Your task to perform on an android device: Open Youtube and go to "Your channel" Image 0: 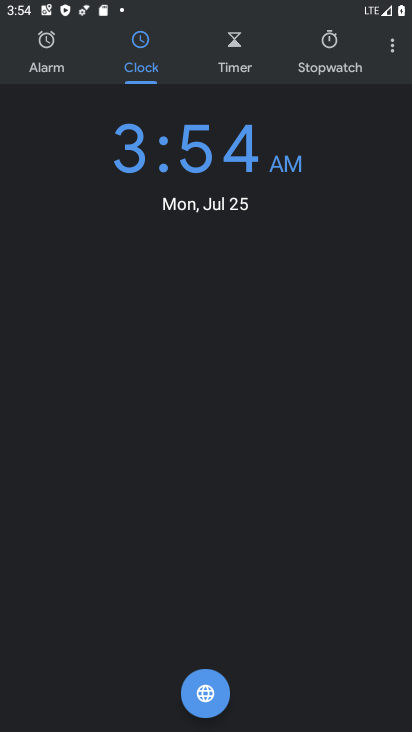
Step 0: press home button
Your task to perform on an android device: Open Youtube and go to "Your channel" Image 1: 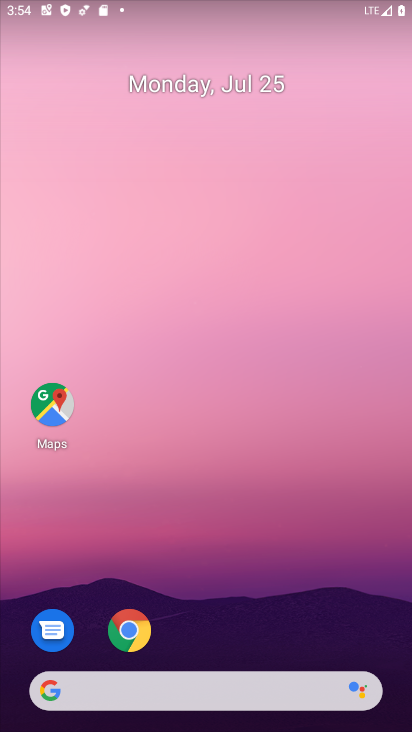
Step 1: drag from (205, 573) to (42, 358)
Your task to perform on an android device: Open Youtube and go to "Your channel" Image 2: 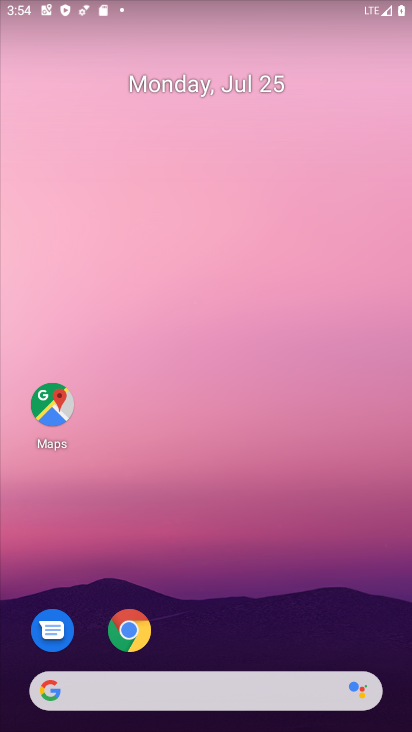
Step 2: drag from (194, 664) to (234, 4)
Your task to perform on an android device: Open Youtube and go to "Your channel" Image 3: 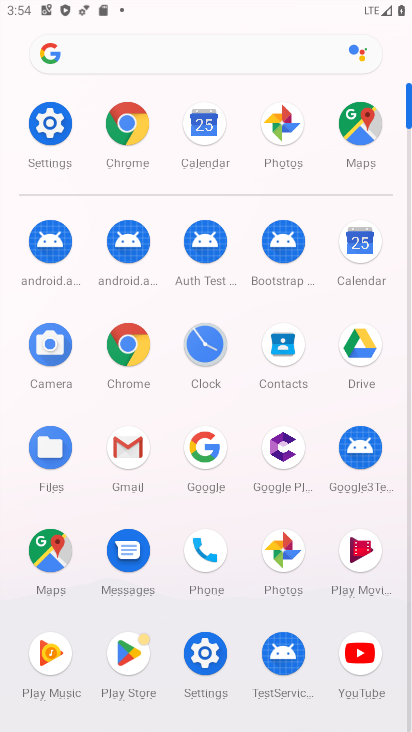
Step 3: click (360, 669)
Your task to perform on an android device: Open Youtube and go to "Your channel" Image 4: 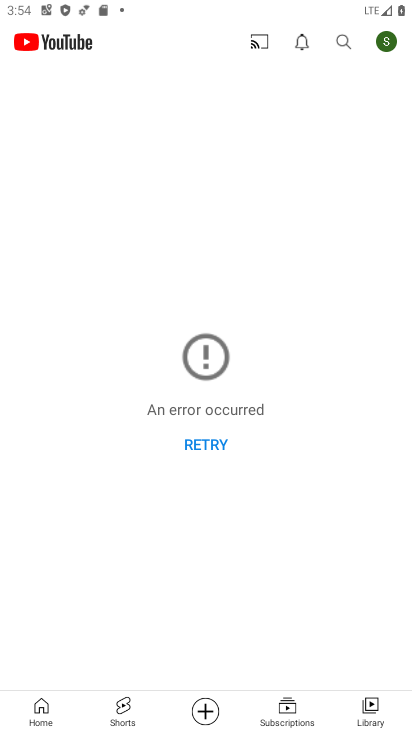
Step 4: click (204, 439)
Your task to perform on an android device: Open Youtube and go to "Your channel" Image 5: 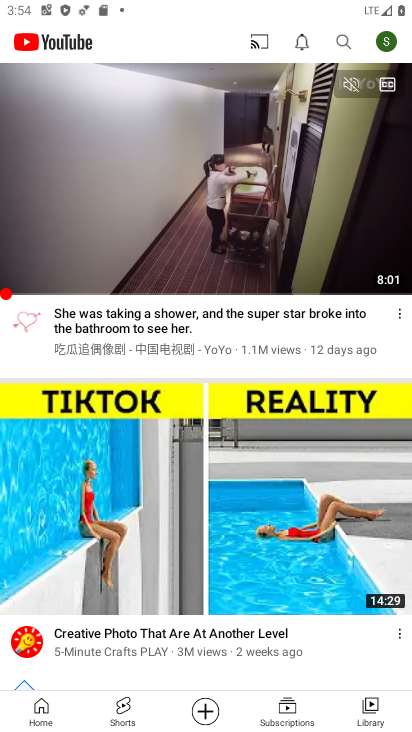
Step 5: click (386, 49)
Your task to perform on an android device: Open Youtube and go to "Your channel" Image 6: 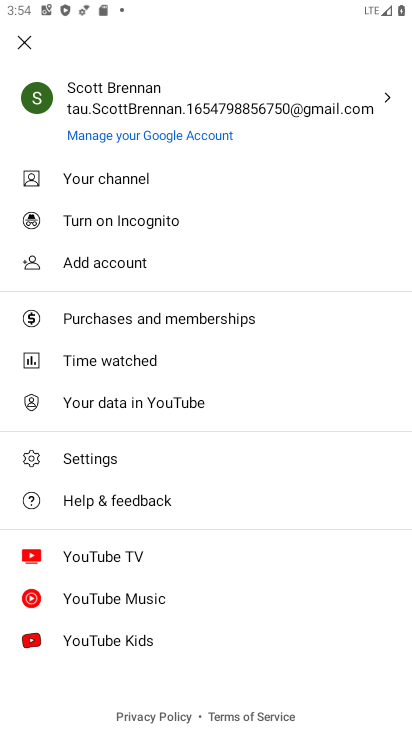
Step 6: click (99, 179)
Your task to perform on an android device: Open Youtube and go to "Your channel" Image 7: 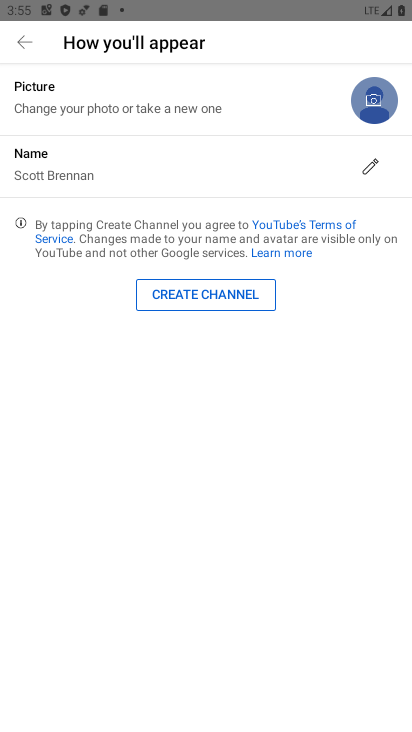
Step 7: task complete